Your task to perform on an android device: Go to notification settings Image 0: 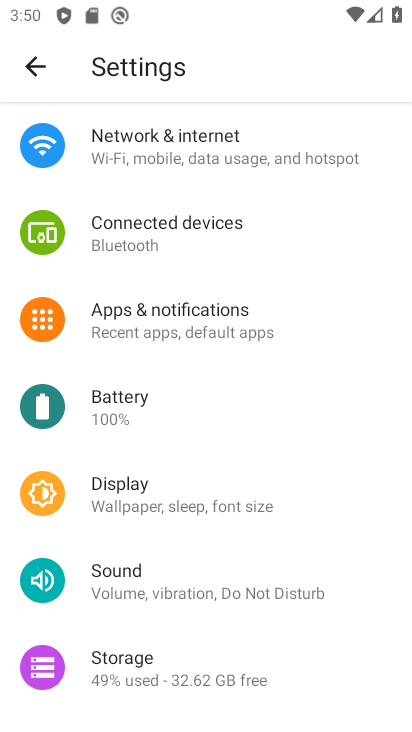
Step 0: click (225, 314)
Your task to perform on an android device: Go to notification settings Image 1: 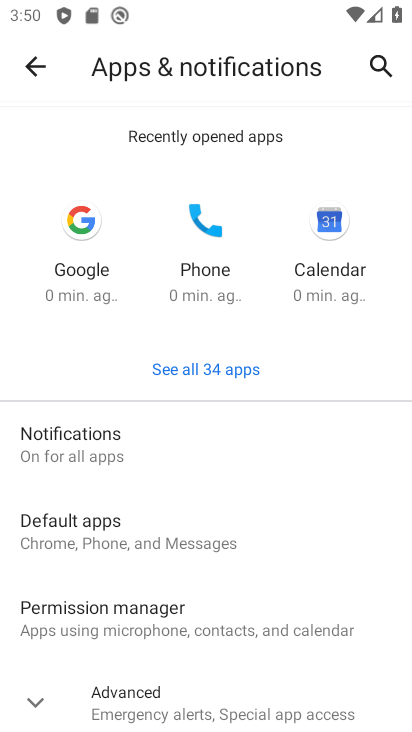
Step 1: click (134, 441)
Your task to perform on an android device: Go to notification settings Image 2: 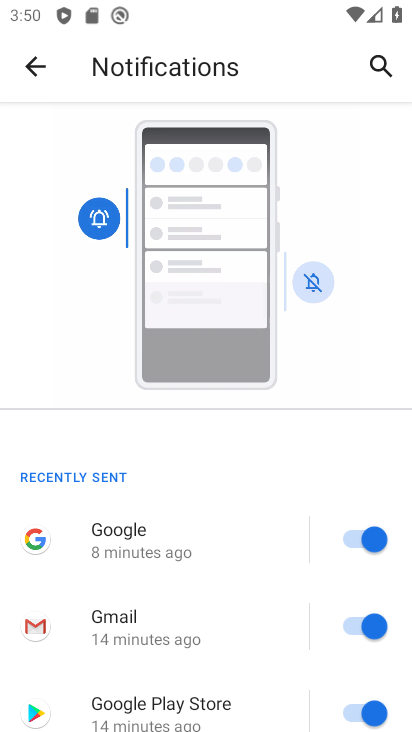
Step 2: task complete